Your task to perform on an android device: What's on my calendar tomorrow? Image 0: 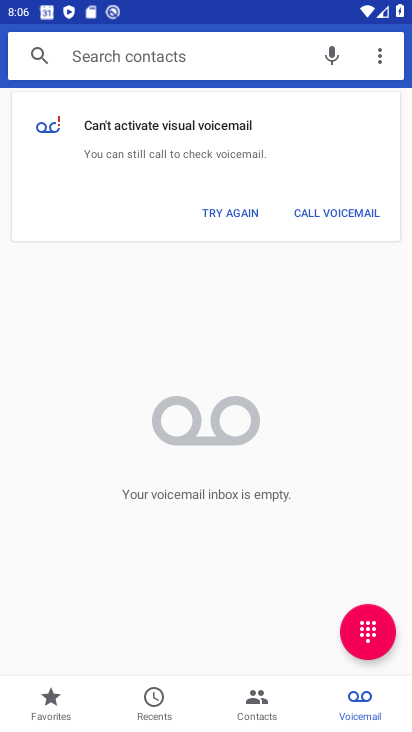
Step 0: press home button
Your task to perform on an android device: What's on my calendar tomorrow? Image 1: 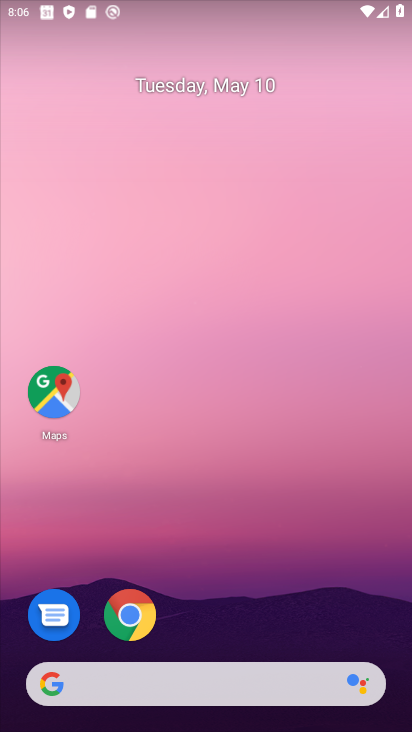
Step 1: drag from (196, 648) to (220, 94)
Your task to perform on an android device: What's on my calendar tomorrow? Image 2: 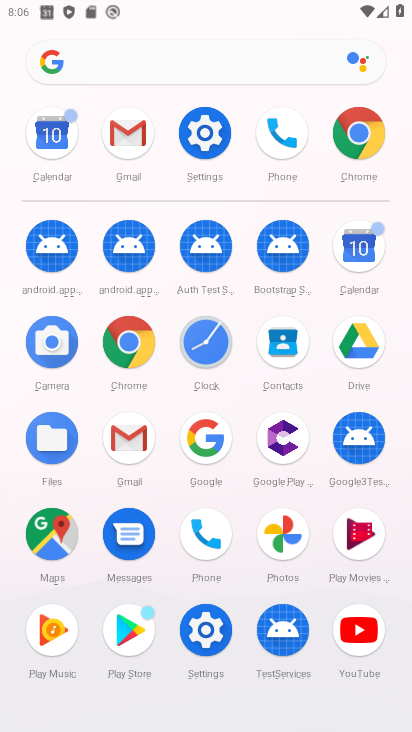
Step 2: click (362, 240)
Your task to perform on an android device: What's on my calendar tomorrow? Image 3: 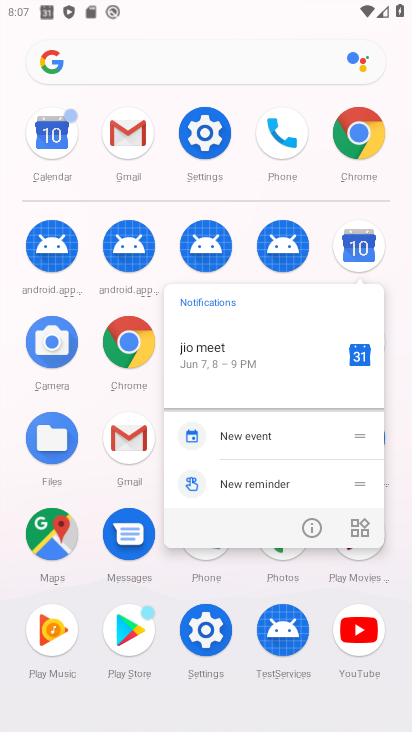
Step 3: click (312, 524)
Your task to perform on an android device: What's on my calendar tomorrow? Image 4: 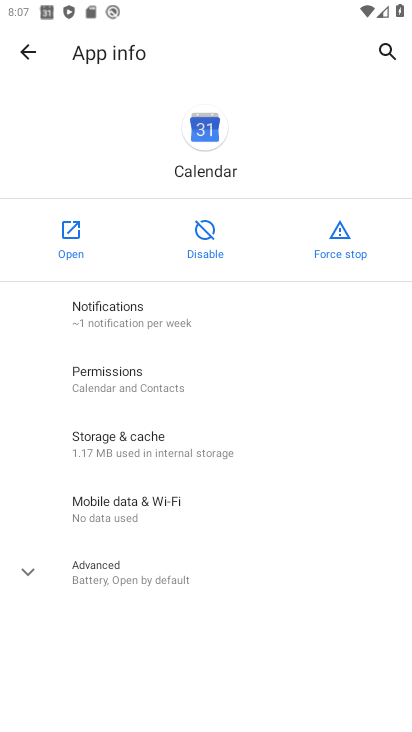
Step 4: click (84, 253)
Your task to perform on an android device: What's on my calendar tomorrow? Image 5: 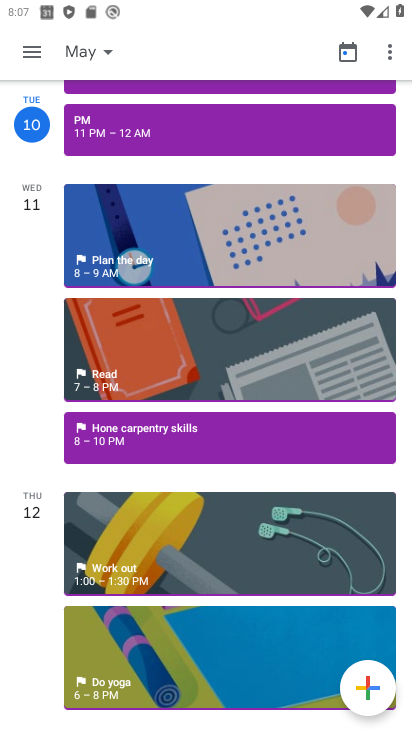
Step 5: drag from (295, 575) to (307, 263)
Your task to perform on an android device: What's on my calendar tomorrow? Image 6: 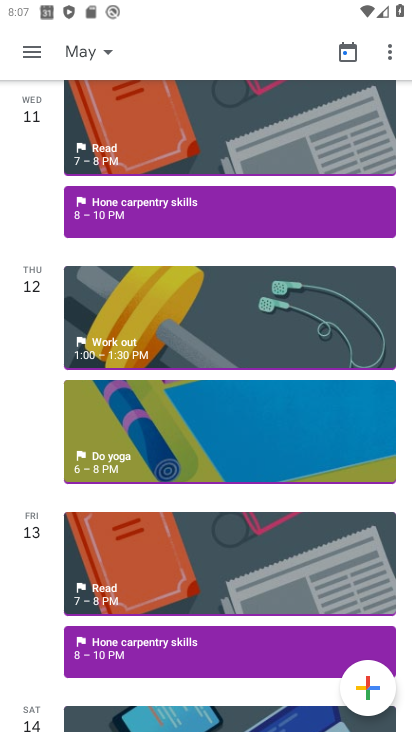
Step 6: click (95, 326)
Your task to perform on an android device: What's on my calendar tomorrow? Image 7: 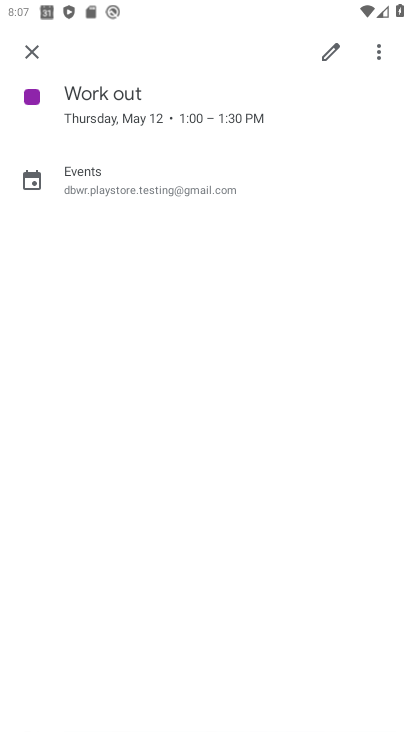
Step 7: task complete